Your task to perform on an android device: What's the price of the 1000-Watt EGO Power+ Snow Blower? Image 0: 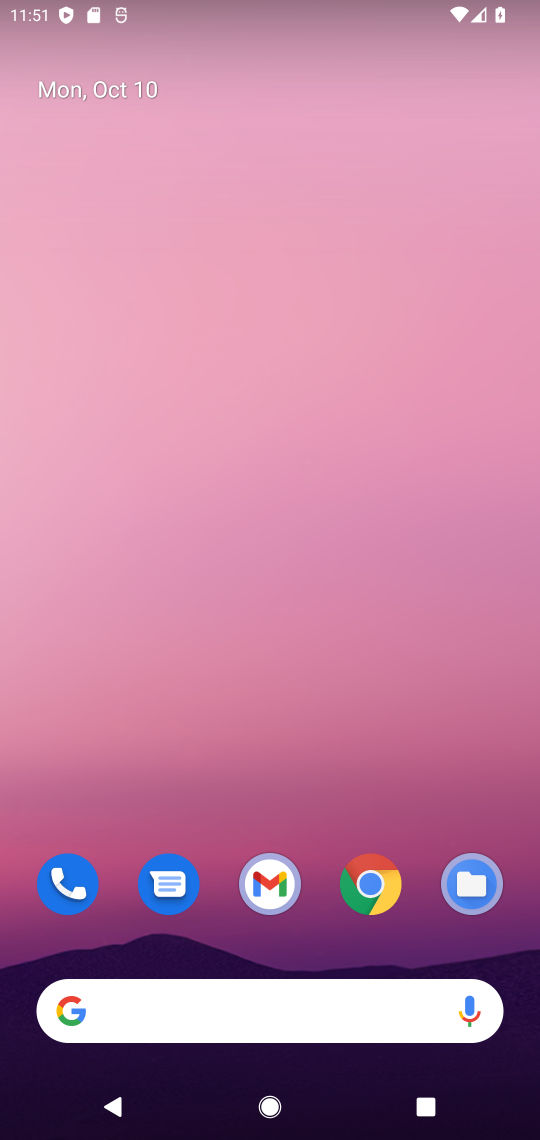
Step 0: click (385, 882)
Your task to perform on an android device: What's the price of the 1000-Watt EGO Power+ Snow Blower? Image 1: 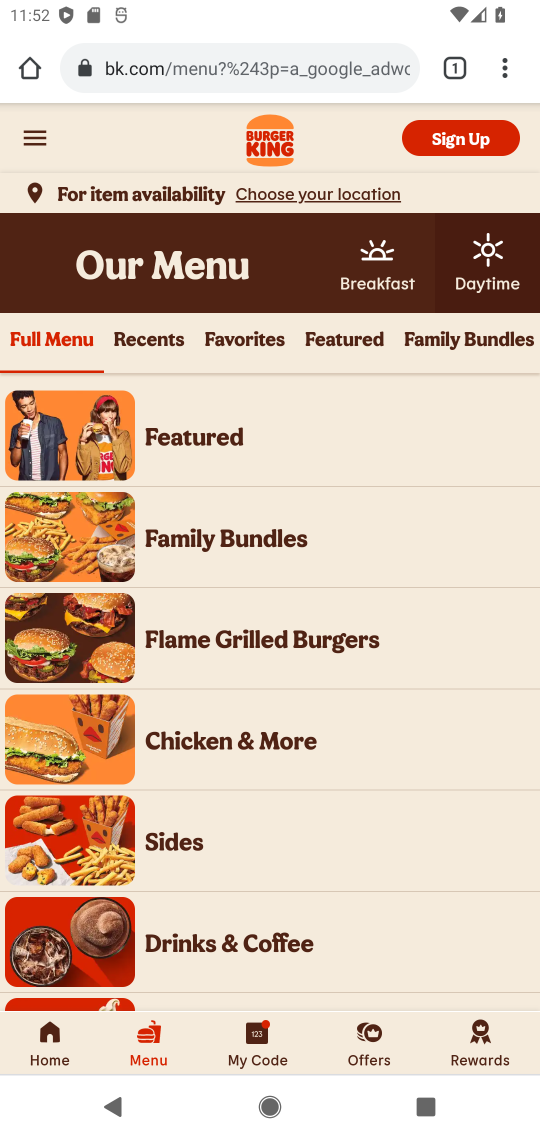
Step 1: click (223, 48)
Your task to perform on an android device: What's the price of the 1000-Watt EGO Power+ Snow Blower? Image 2: 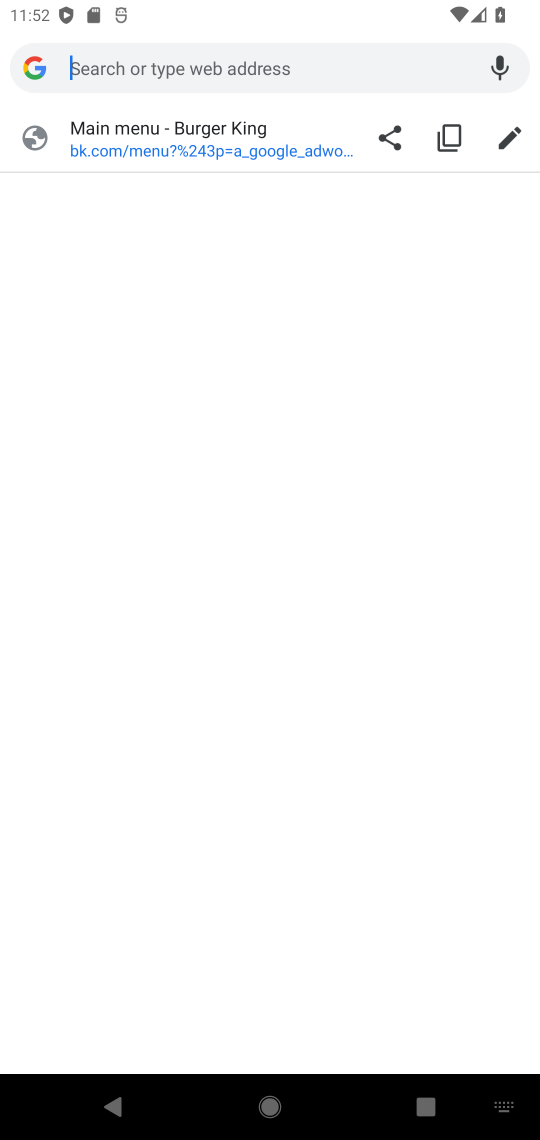
Step 2: type "1000 watt EGO Power+ Snow Blower"
Your task to perform on an android device: What's the price of the 1000-Watt EGO Power+ Snow Blower? Image 3: 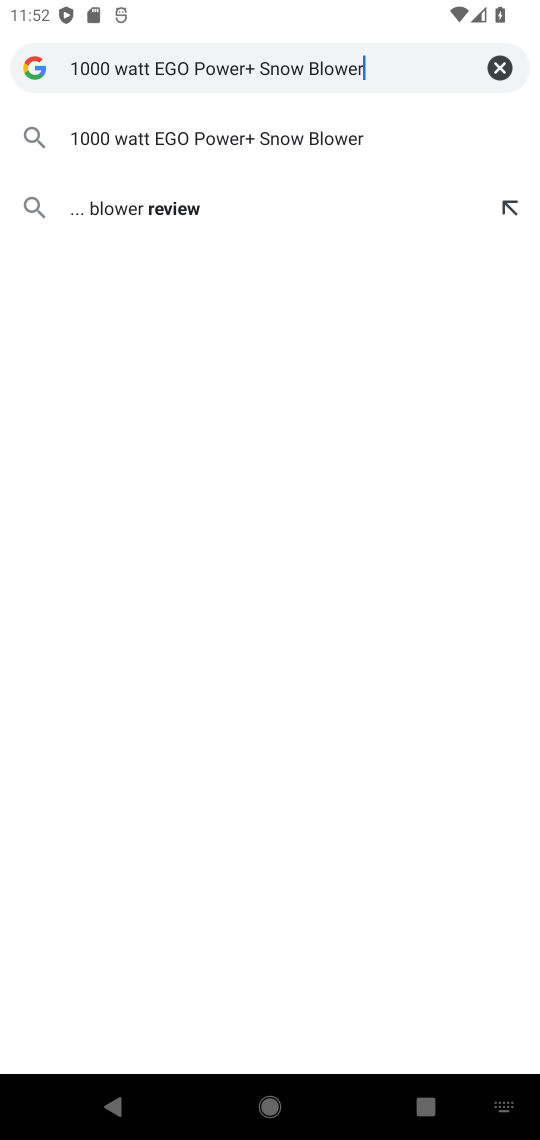
Step 3: press enter
Your task to perform on an android device: What's the price of the 1000-Watt EGO Power+ Snow Blower? Image 4: 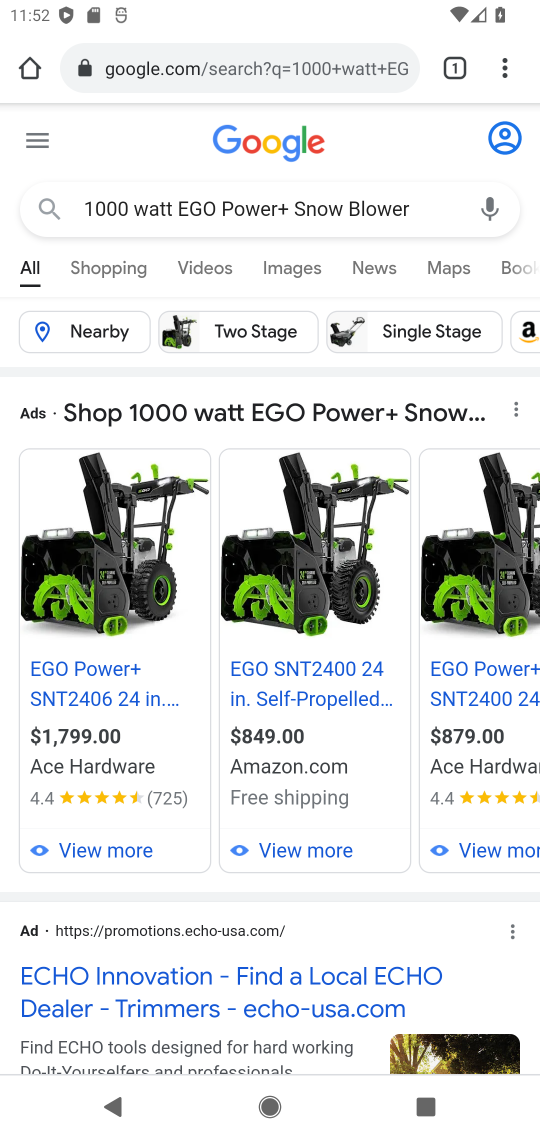
Step 4: drag from (292, 746) to (134, 753)
Your task to perform on an android device: What's the price of the 1000-Watt EGO Power+ Snow Blower? Image 5: 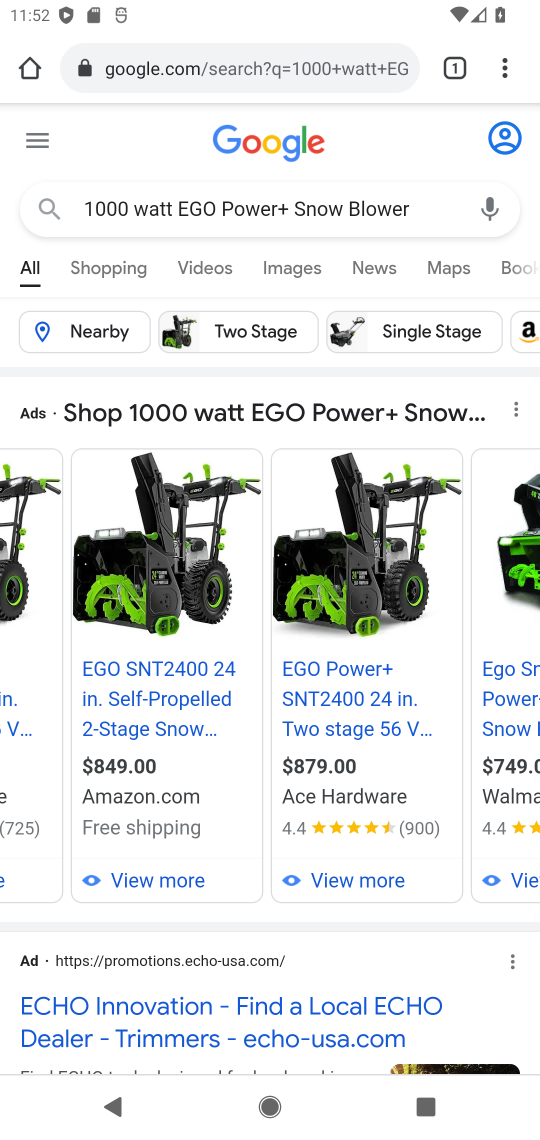
Step 5: drag from (398, 745) to (154, 734)
Your task to perform on an android device: What's the price of the 1000-Watt EGO Power+ Snow Blower? Image 6: 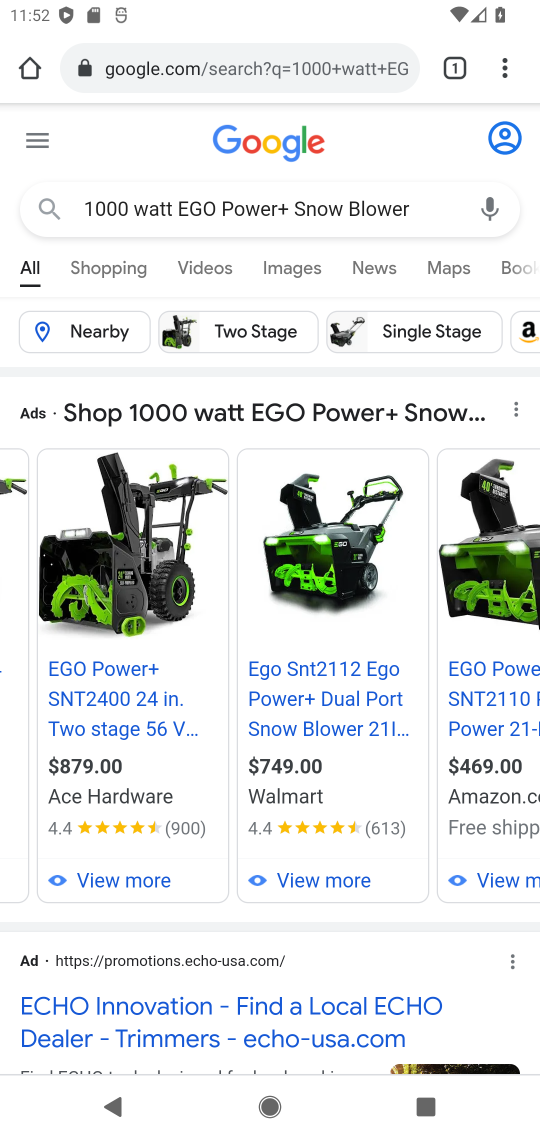
Step 6: drag from (433, 739) to (502, 749)
Your task to perform on an android device: What's the price of the 1000-Watt EGO Power+ Snow Blower? Image 7: 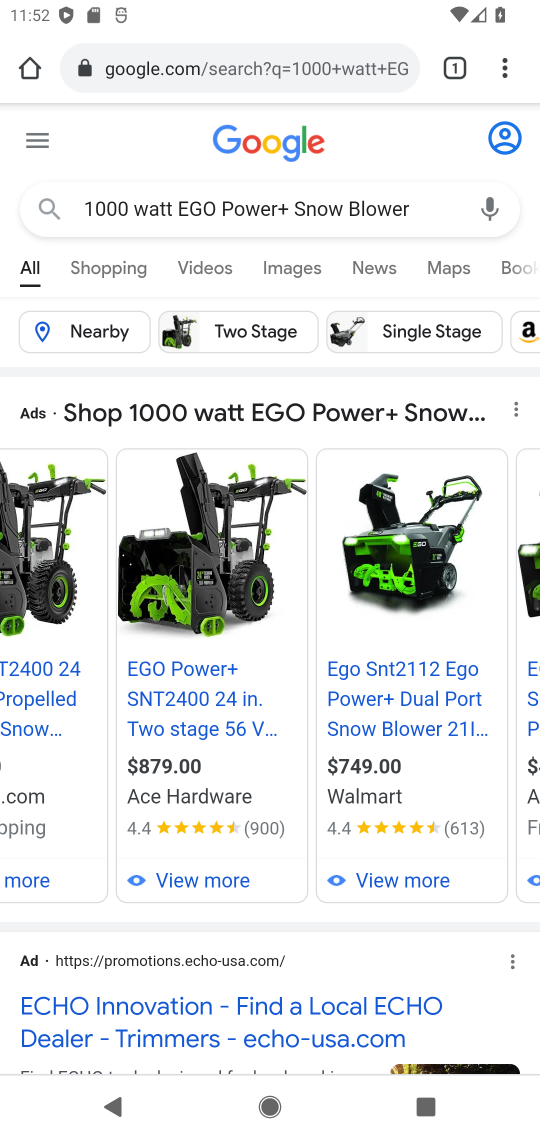
Step 7: drag from (187, 744) to (515, 751)
Your task to perform on an android device: What's the price of the 1000-Watt EGO Power+ Snow Blower? Image 8: 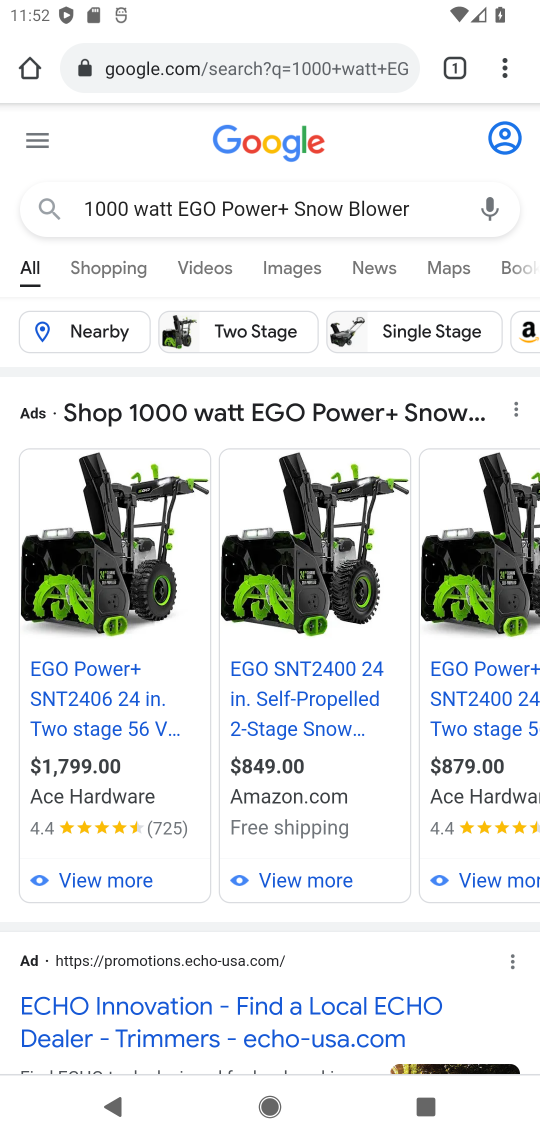
Step 8: drag from (179, 732) to (429, 741)
Your task to perform on an android device: What's the price of the 1000-Watt EGO Power+ Snow Blower? Image 9: 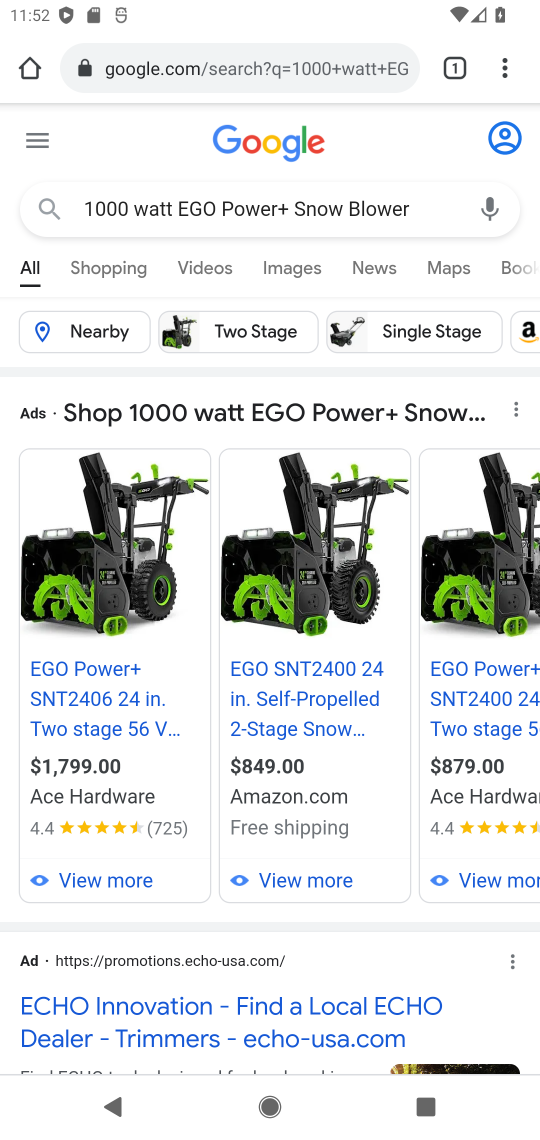
Step 9: click (93, 684)
Your task to perform on an android device: What's the price of the 1000-Watt EGO Power+ Snow Blower? Image 10: 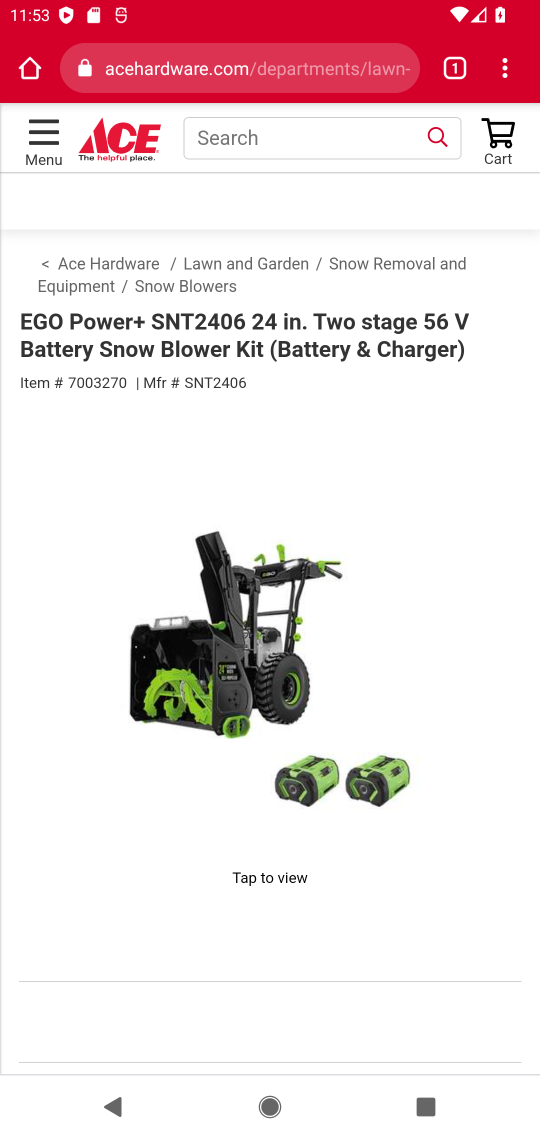
Step 10: drag from (426, 831) to (416, 463)
Your task to perform on an android device: What's the price of the 1000-Watt EGO Power+ Snow Blower? Image 11: 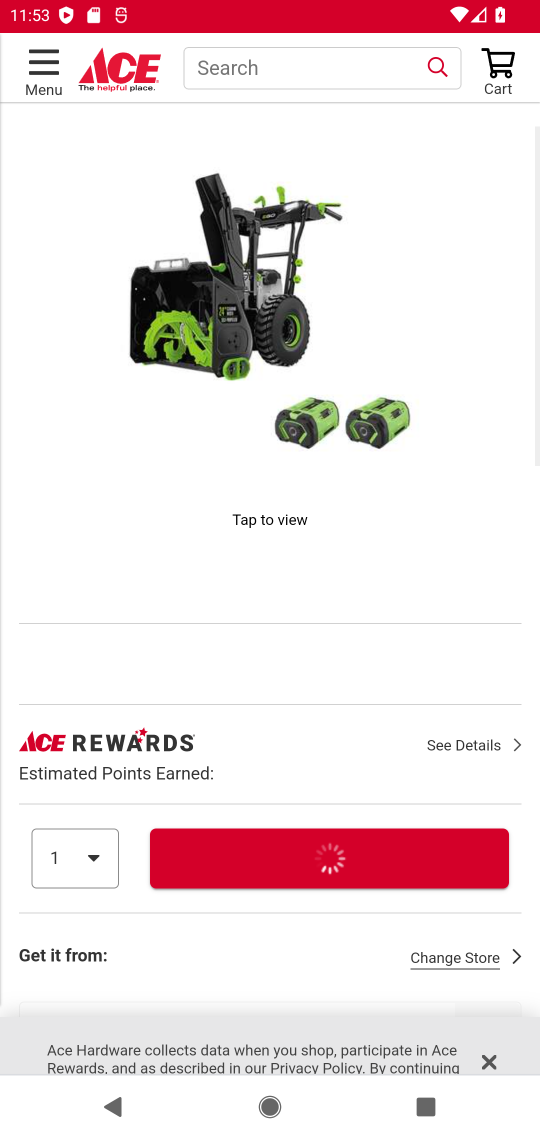
Step 11: drag from (364, 795) to (373, 383)
Your task to perform on an android device: What's the price of the 1000-Watt EGO Power+ Snow Blower? Image 12: 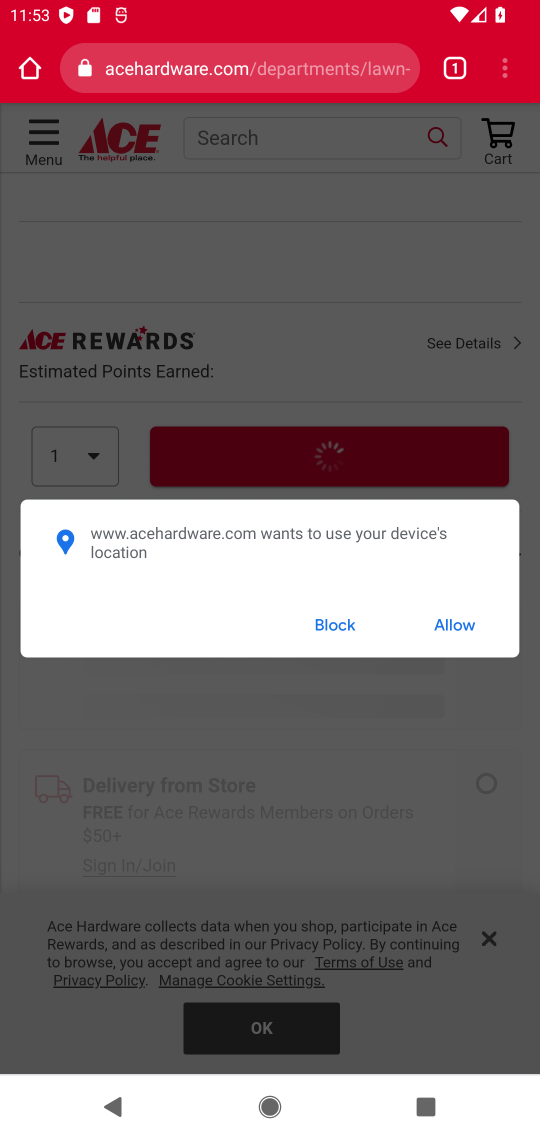
Step 12: click (457, 632)
Your task to perform on an android device: What's the price of the 1000-Watt EGO Power+ Snow Blower? Image 13: 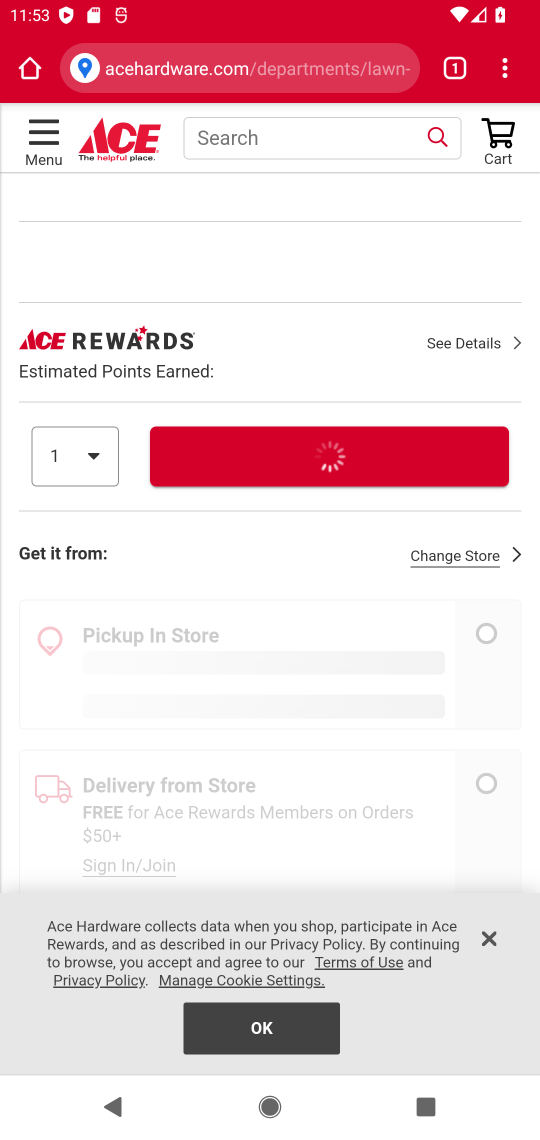
Step 13: click (256, 1015)
Your task to perform on an android device: What's the price of the 1000-Watt EGO Power+ Snow Blower? Image 14: 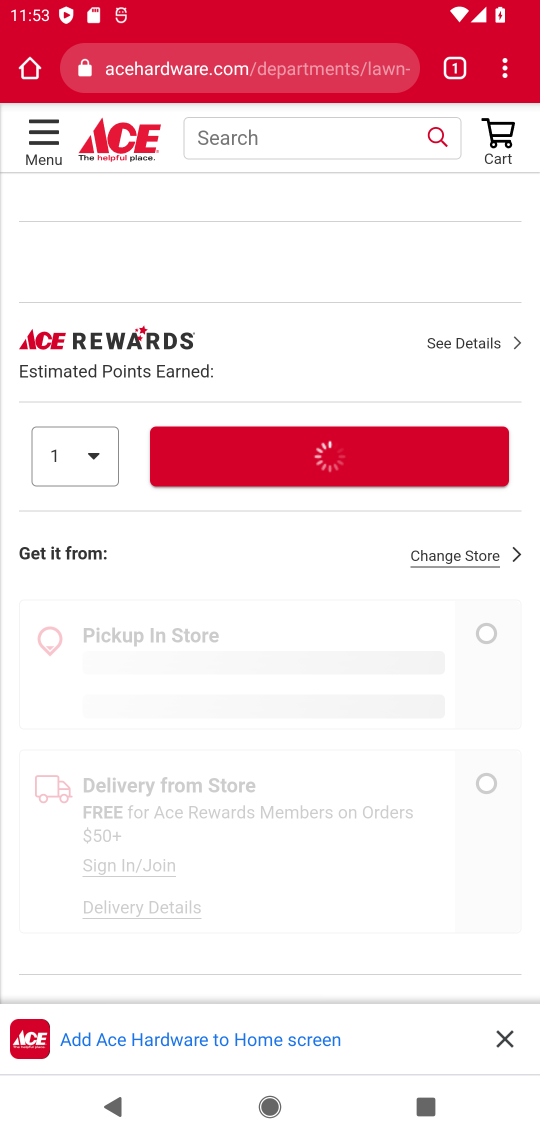
Step 14: click (509, 1042)
Your task to perform on an android device: What's the price of the 1000-Watt EGO Power+ Snow Blower? Image 15: 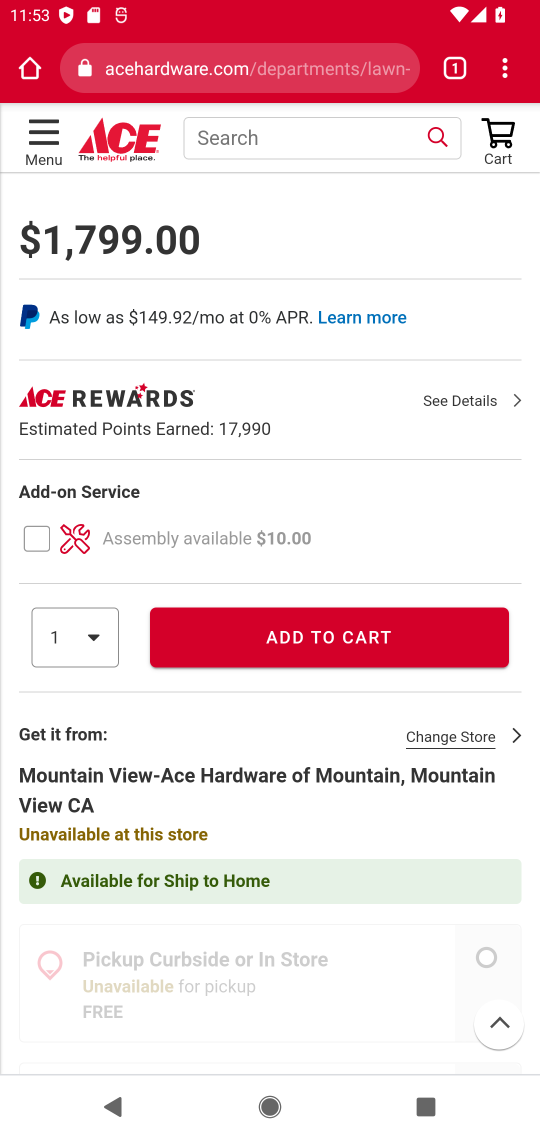
Step 15: task complete